Your task to perform on an android device: Open Wikipedia Image 0: 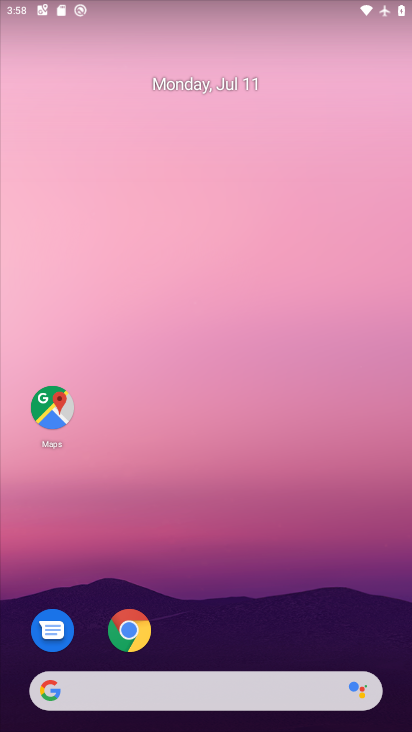
Step 0: drag from (294, 636) to (189, 172)
Your task to perform on an android device: Open Wikipedia Image 1: 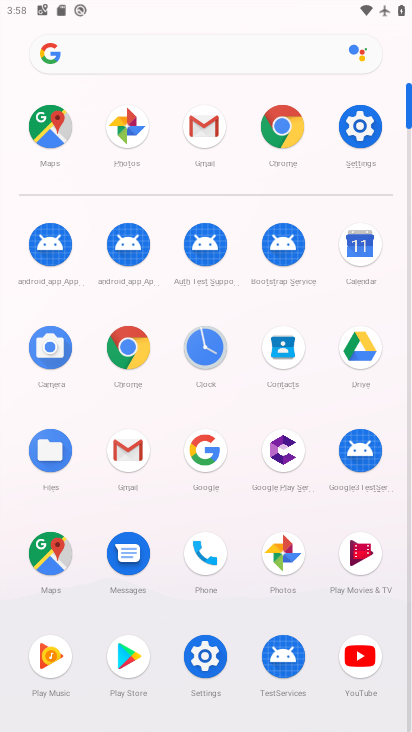
Step 1: click (277, 118)
Your task to perform on an android device: Open Wikipedia Image 2: 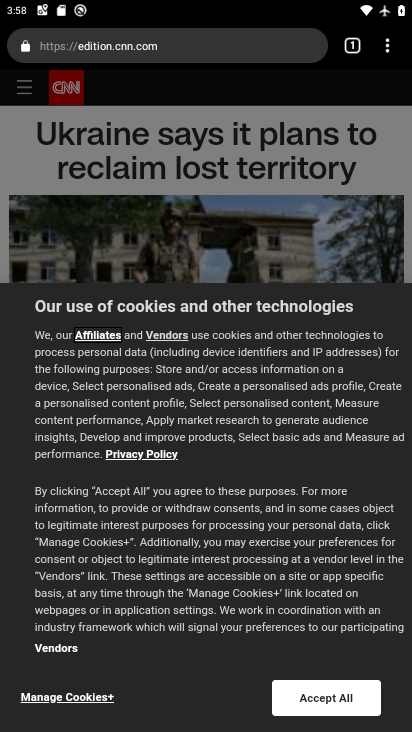
Step 2: click (217, 58)
Your task to perform on an android device: Open Wikipedia Image 3: 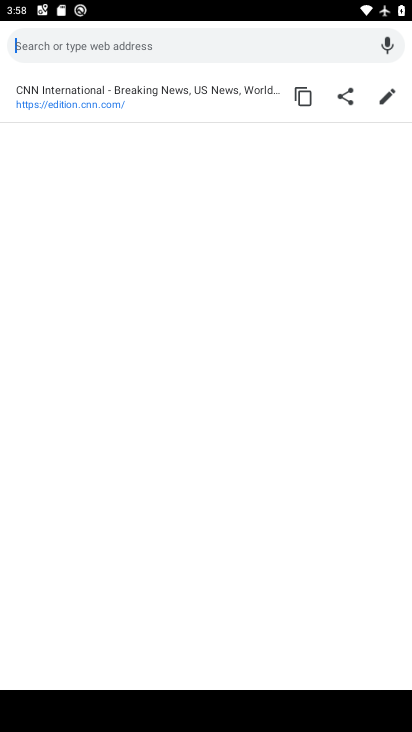
Step 3: type "wikipedia"
Your task to perform on an android device: Open Wikipedia Image 4: 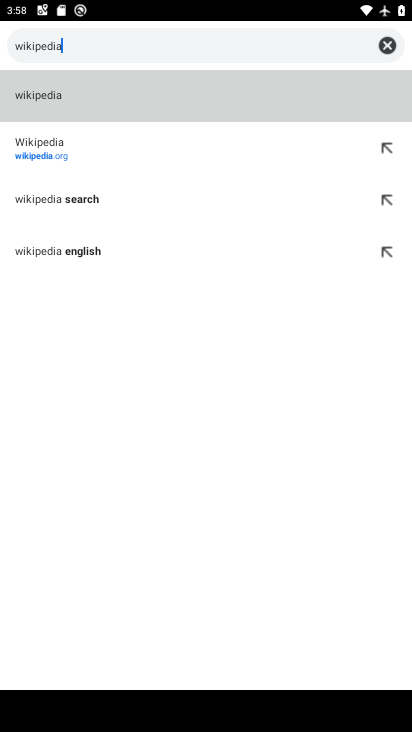
Step 4: click (114, 141)
Your task to perform on an android device: Open Wikipedia Image 5: 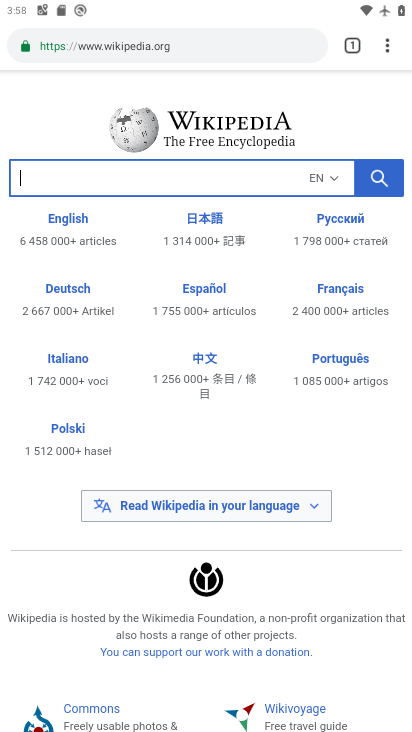
Step 5: task complete